Your task to perform on an android device: Go to battery settings Image 0: 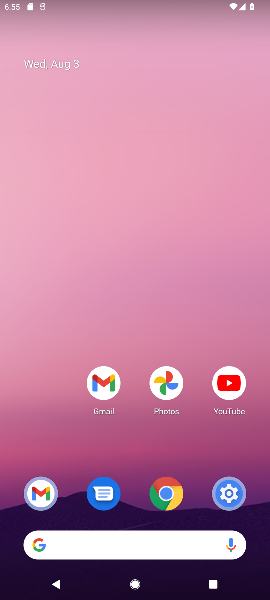
Step 0: drag from (119, 460) to (122, 132)
Your task to perform on an android device: Go to battery settings Image 1: 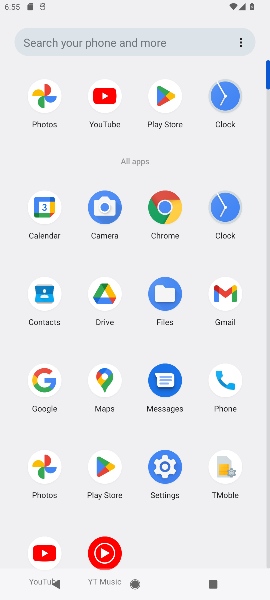
Step 1: click (179, 452)
Your task to perform on an android device: Go to battery settings Image 2: 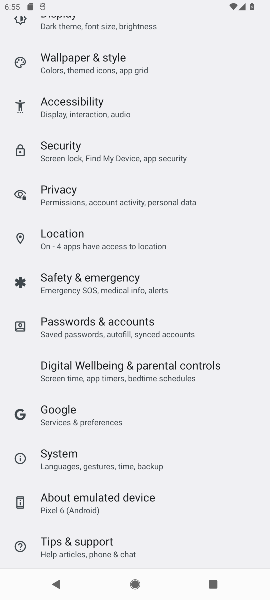
Step 2: drag from (93, 78) to (104, 472)
Your task to perform on an android device: Go to battery settings Image 3: 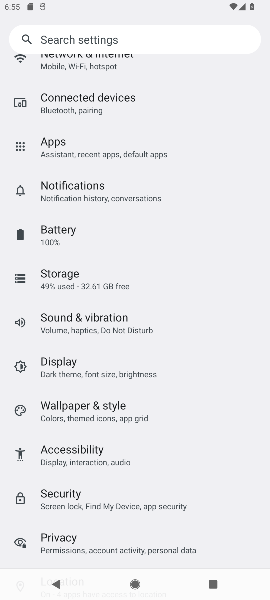
Step 3: click (93, 214)
Your task to perform on an android device: Go to battery settings Image 4: 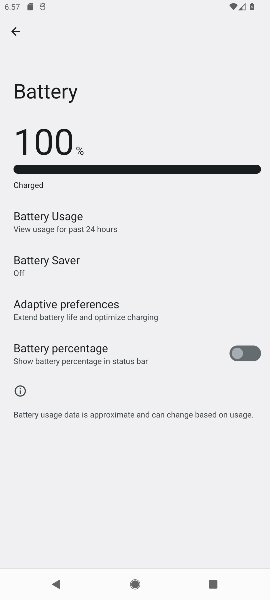
Step 4: task complete